Your task to perform on an android device: Open the map Image 0: 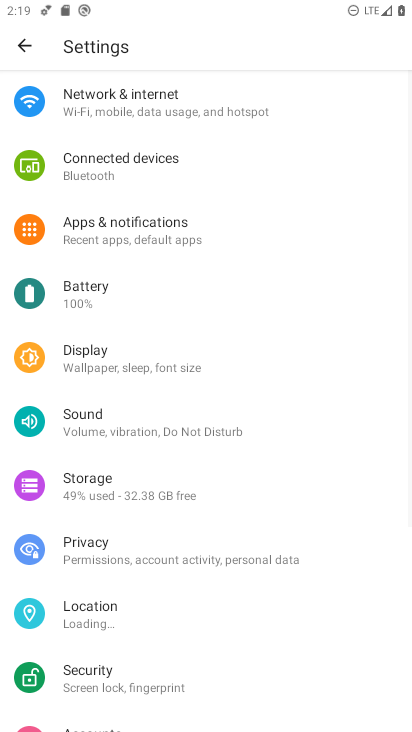
Step 0: press home button
Your task to perform on an android device: Open the map Image 1: 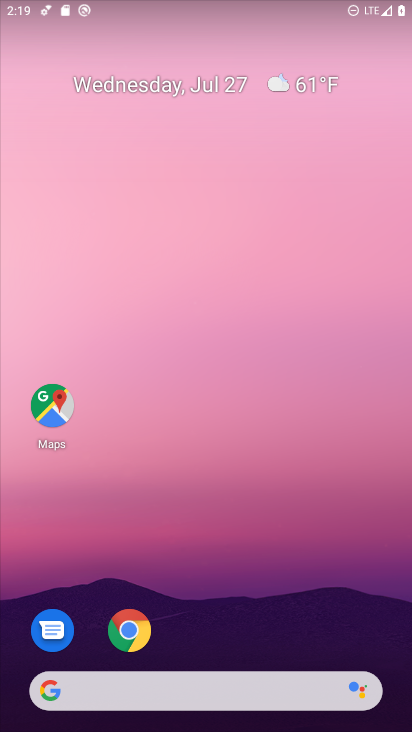
Step 1: click (43, 418)
Your task to perform on an android device: Open the map Image 2: 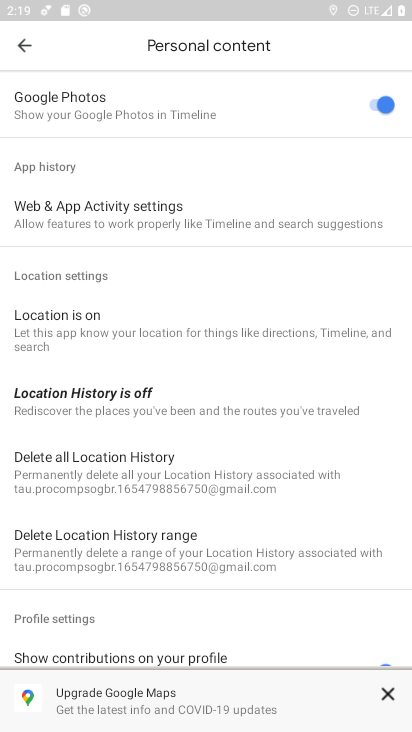
Step 2: click (12, 35)
Your task to perform on an android device: Open the map Image 3: 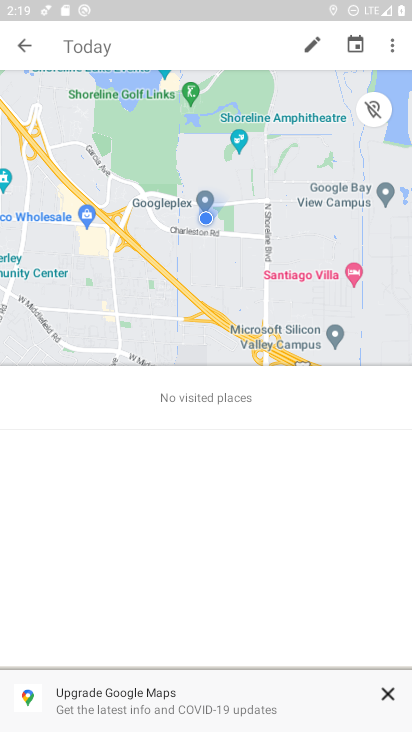
Step 3: click (21, 49)
Your task to perform on an android device: Open the map Image 4: 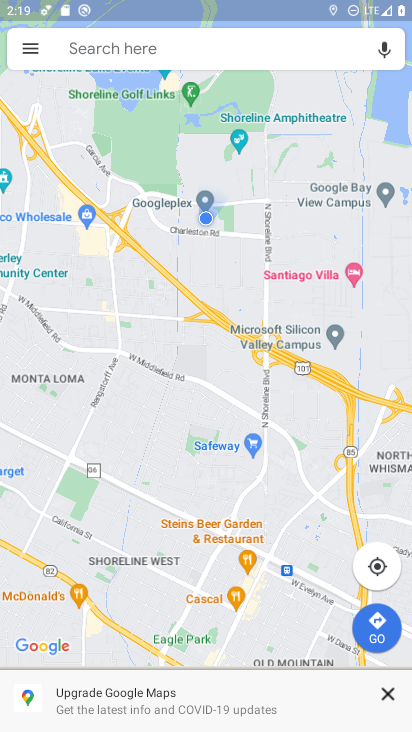
Step 4: task complete